Your task to perform on an android device: star an email in the gmail app Image 0: 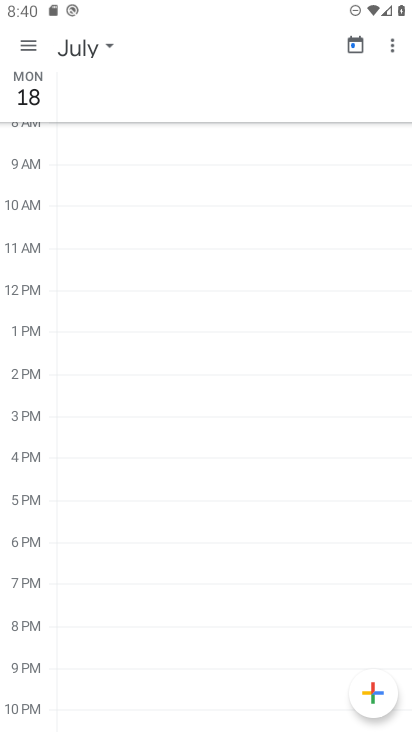
Step 0: press home button
Your task to perform on an android device: star an email in the gmail app Image 1: 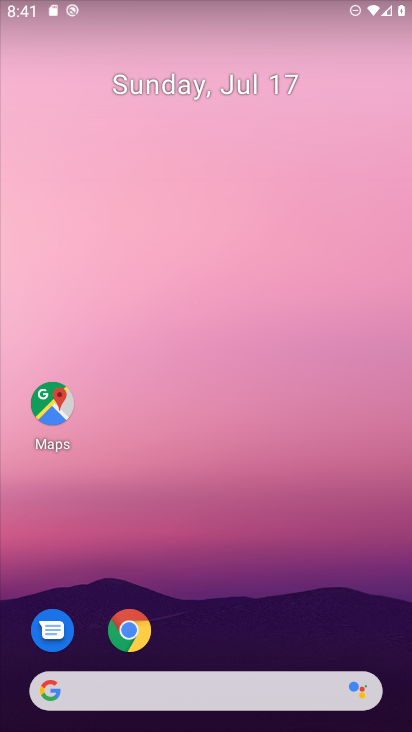
Step 1: drag from (228, 623) to (255, 153)
Your task to perform on an android device: star an email in the gmail app Image 2: 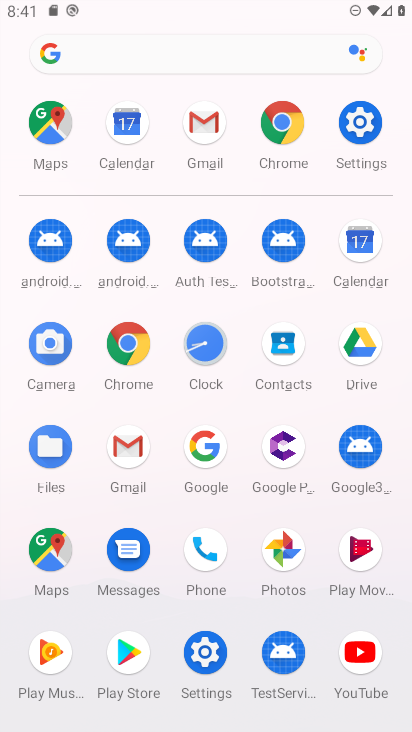
Step 2: click (202, 129)
Your task to perform on an android device: star an email in the gmail app Image 3: 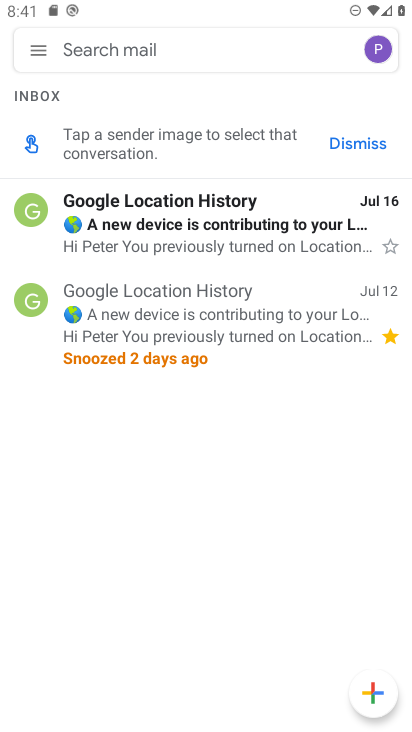
Step 3: click (393, 254)
Your task to perform on an android device: star an email in the gmail app Image 4: 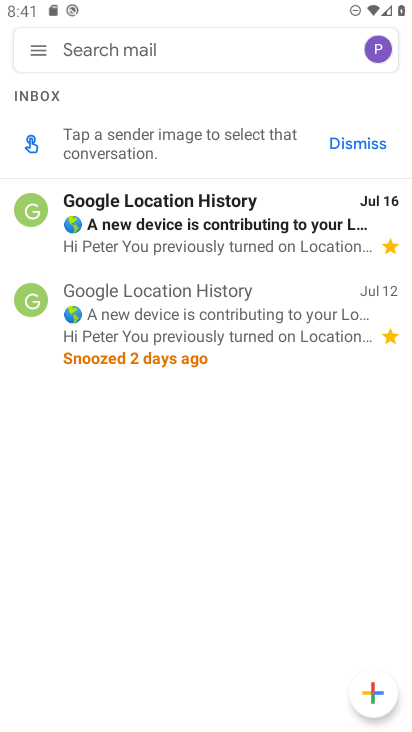
Step 4: task complete